Your task to perform on an android device: Show me productivity apps on the Play Store Image 0: 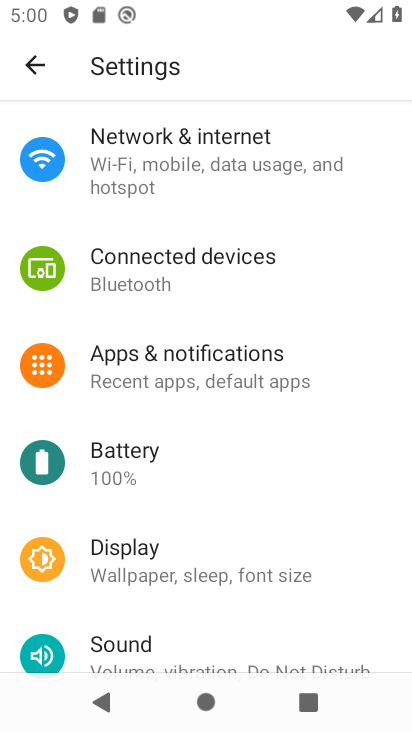
Step 0: press home button
Your task to perform on an android device: Show me productivity apps on the Play Store Image 1: 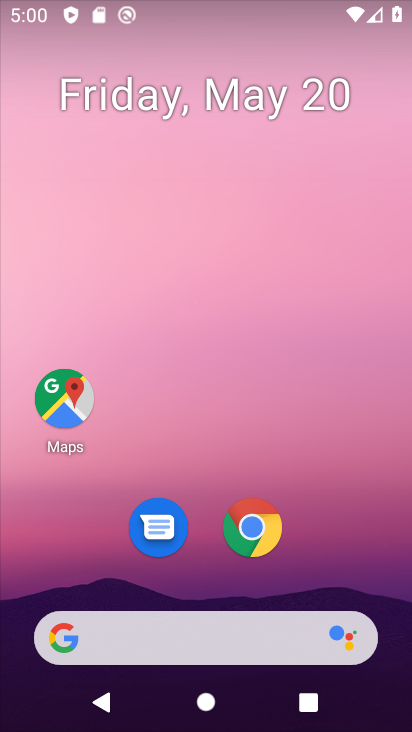
Step 1: drag from (275, 608) to (251, 44)
Your task to perform on an android device: Show me productivity apps on the Play Store Image 2: 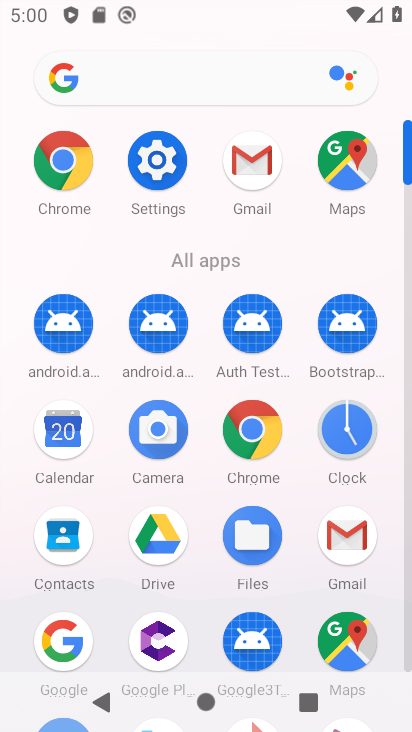
Step 2: drag from (280, 592) to (296, 204)
Your task to perform on an android device: Show me productivity apps on the Play Store Image 3: 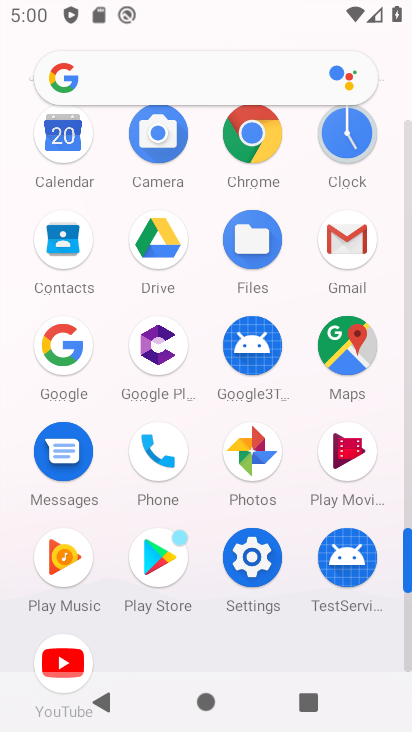
Step 3: click (154, 565)
Your task to perform on an android device: Show me productivity apps on the Play Store Image 4: 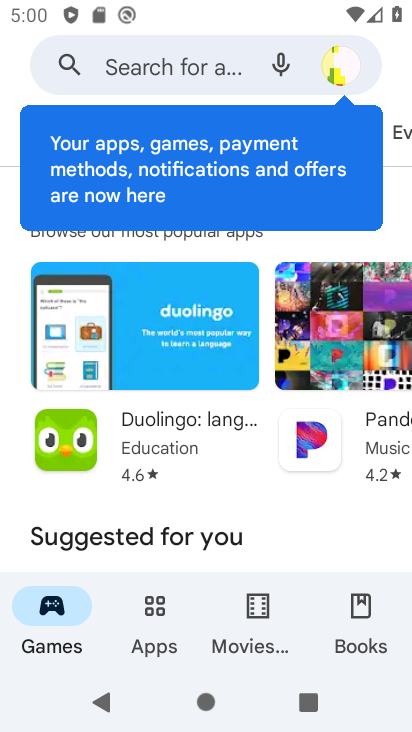
Step 4: drag from (237, 464) to (245, 249)
Your task to perform on an android device: Show me productivity apps on the Play Store Image 5: 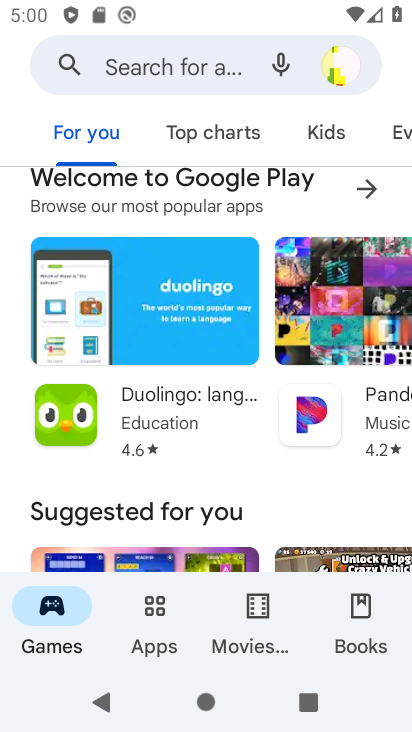
Step 5: click (163, 608)
Your task to perform on an android device: Show me productivity apps on the Play Store Image 6: 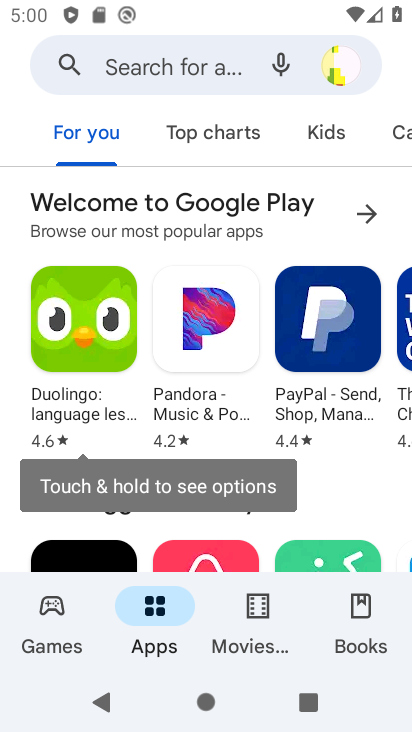
Step 6: drag from (358, 497) to (335, 20)
Your task to perform on an android device: Show me productivity apps on the Play Store Image 7: 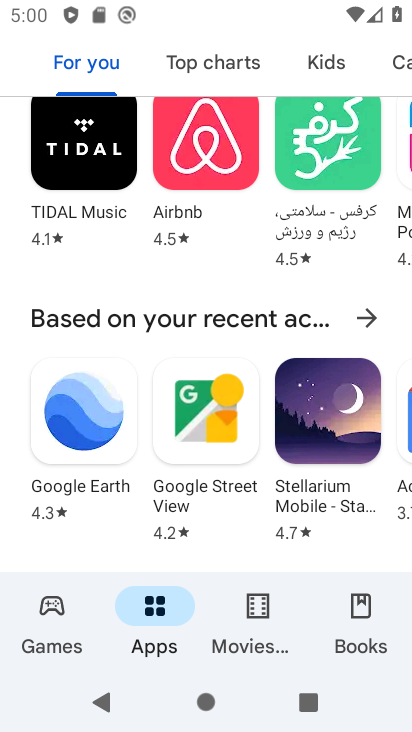
Step 7: drag from (239, 537) to (230, 65)
Your task to perform on an android device: Show me productivity apps on the Play Store Image 8: 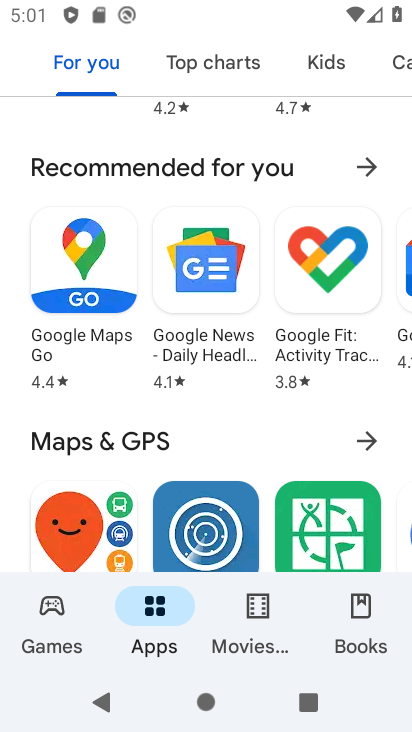
Step 8: drag from (263, 435) to (281, 38)
Your task to perform on an android device: Show me productivity apps on the Play Store Image 9: 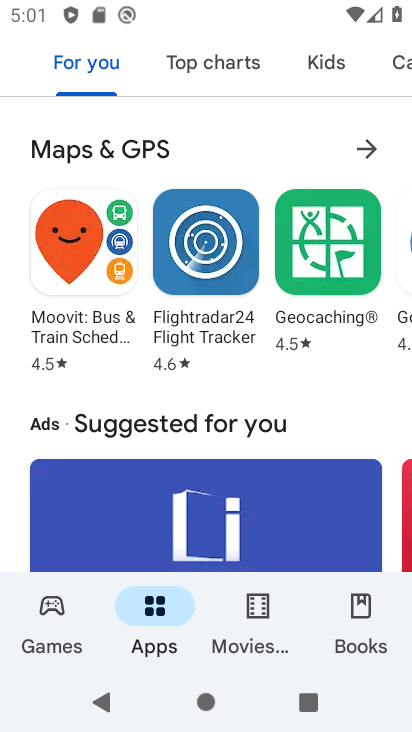
Step 9: drag from (318, 424) to (303, 44)
Your task to perform on an android device: Show me productivity apps on the Play Store Image 10: 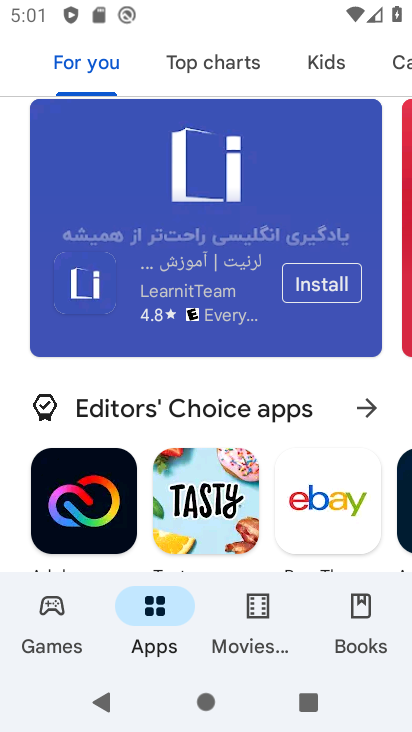
Step 10: drag from (317, 419) to (317, 58)
Your task to perform on an android device: Show me productivity apps on the Play Store Image 11: 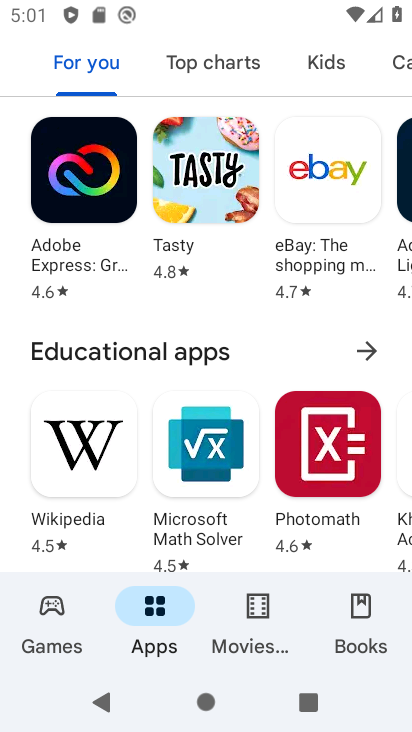
Step 11: drag from (274, 364) to (314, 50)
Your task to perform on an android device: Show me productivity apps on the Play Store Image 12: 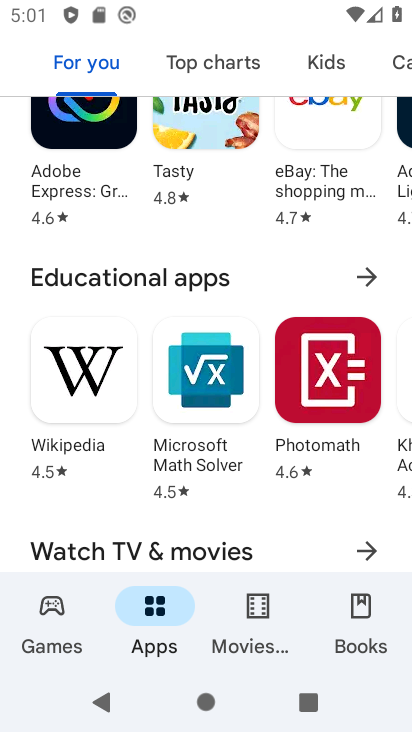
Step 12: drag from (289, 508) to (325, 90)
Your task to perform on an android device: Show me productivity apps on the Play Store Image 13: 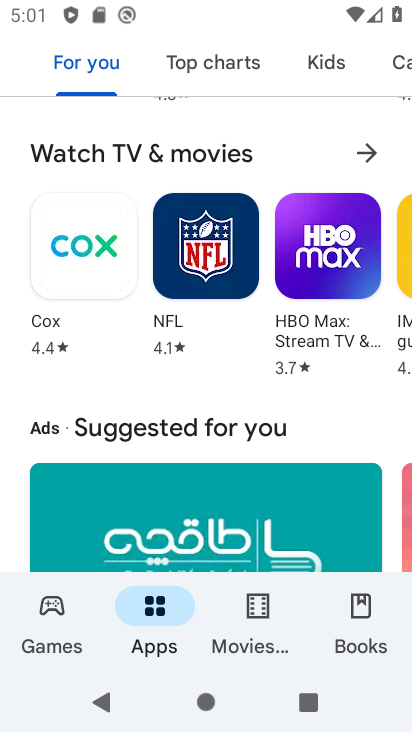
Step 13: drag from (337, 395) to (294, 5)
Your task to perform on an android device: Show me productivity apps on the Play Store Image 14: 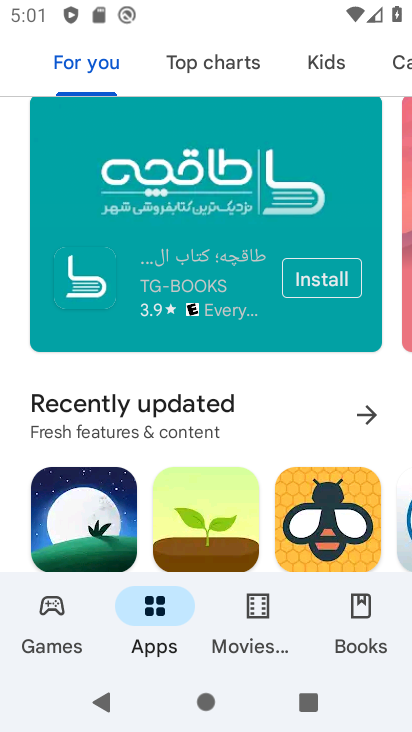
Step 14: drag from (275, 405) to (298, 13)
Your task to perform on an android device: Show me productivity apps on the Play Store Image 15: 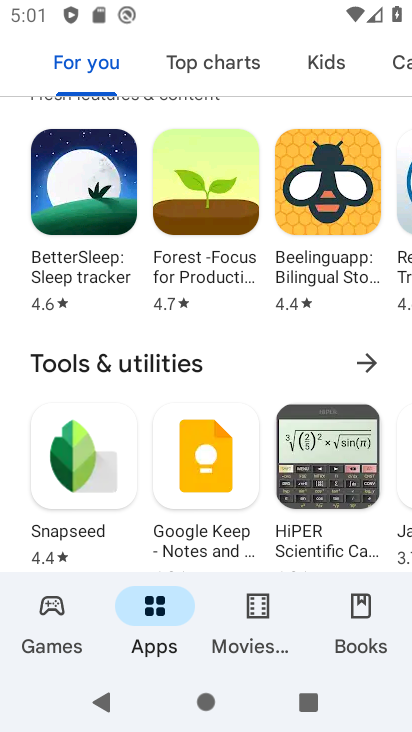
Step 15: drag from (303, 338) to (311, 81)
Your task to perform on an android device: Show me productivity apps on the Play Store Image 16: 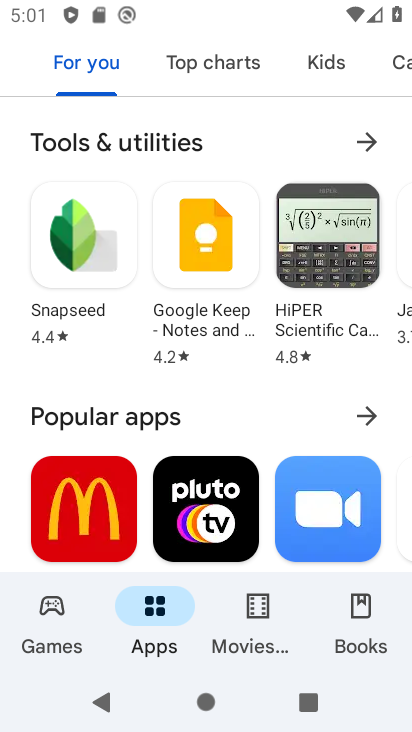
Step 16: drag from (254, 433) to (287, 86)
Your task to perform on an android device: Show me productivity apps on the Play Store Image 17: 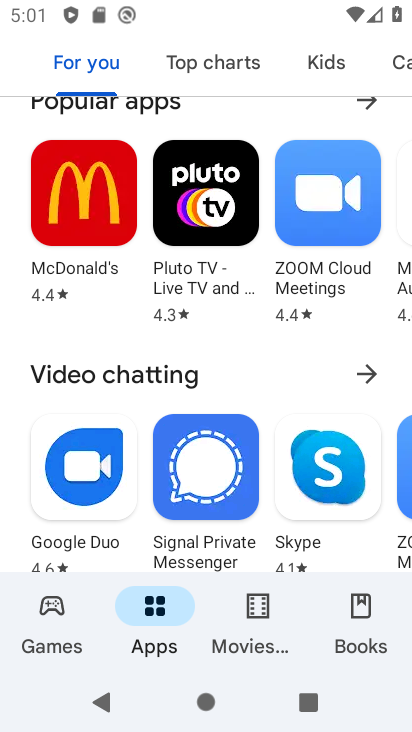
Step 17: drag from (274, 383) to (271, 113)
Your task to perform on an android device: Show me productivity apps on the Play Store Image 18: 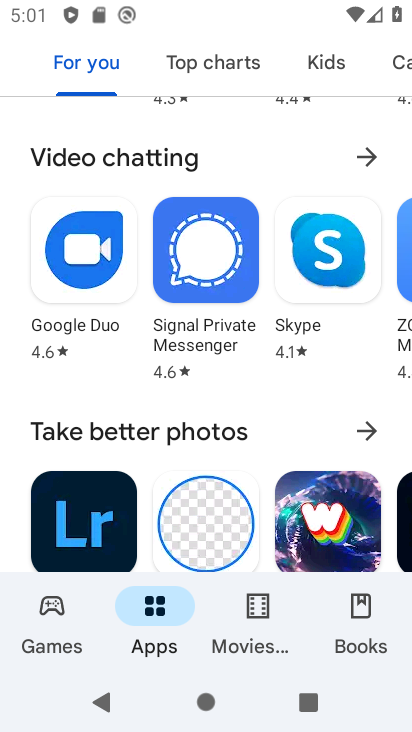
Step 18: drag from (268, 416) to (308, 5)
Your task to perform on an android device: Show me productivity apps on the Play Store Image 19: 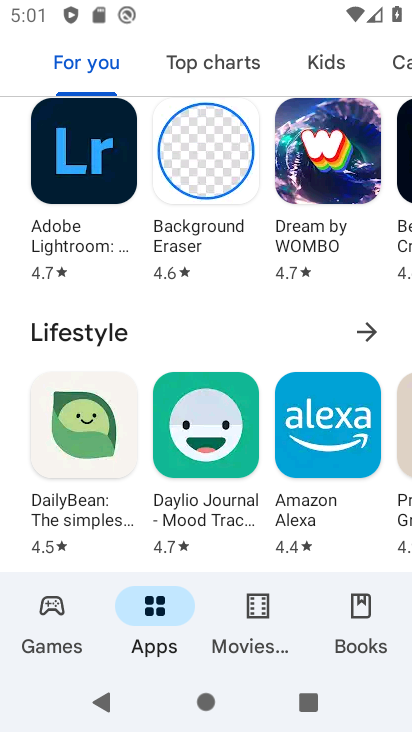
Step 19: drag from (246, 545) to (308, 97)
Your task to perform on an android device: Show me productivity apps on the Play Store Image 20: 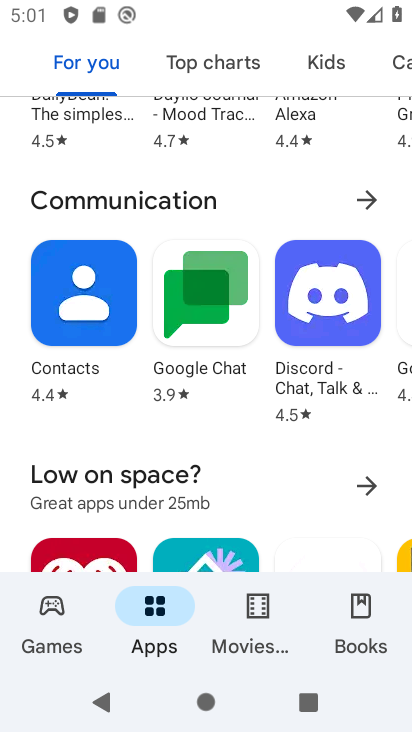
Step 20: drag from (303, 488) to (333, 80)
Your task to perform on an android device: Show me productivity apps on the Play Store Image 21: 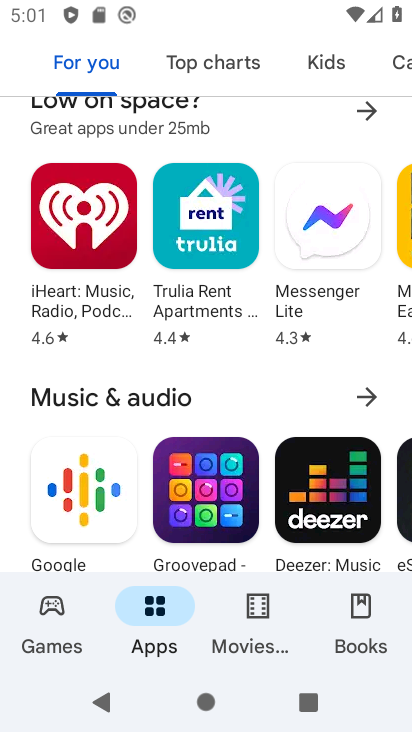
Step 21: drag from (383, 539) to (388, 67)
Your task to perform on an android device: Show me productivity apps on the Play Store Image 22: 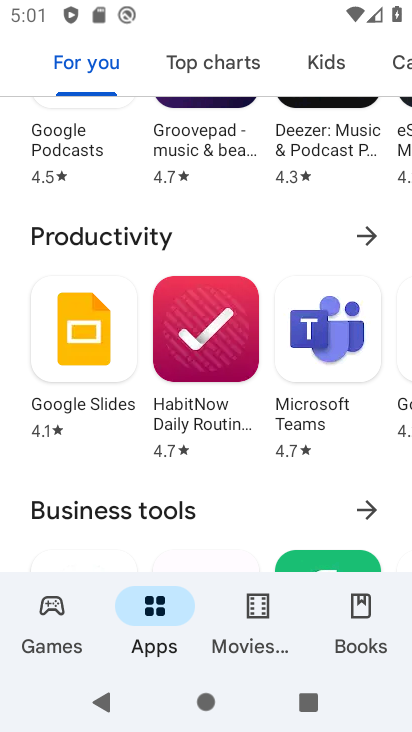
Step 22: click (366, 228)
Your task to perform on an android device: Show me productivity apps on the Play Store Image 23: 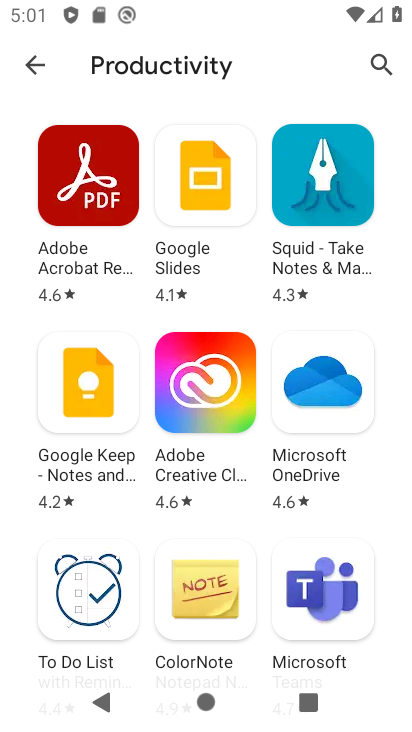
Step 23: task complete